Your task to perform on an android device: Is it going to rain tomorrow? Image 0: 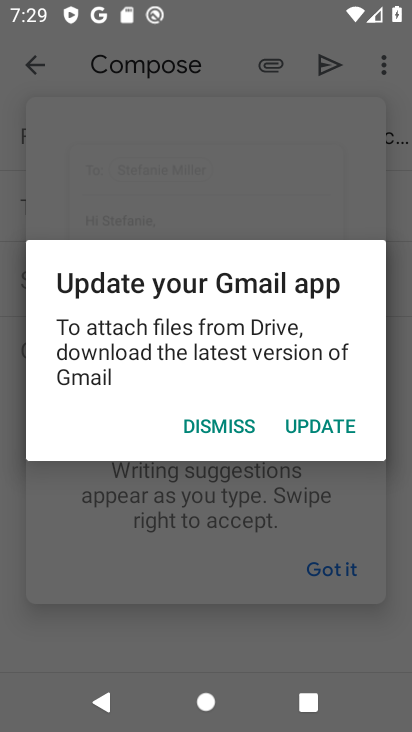
Step 0: press home button
Your task to perform on an android device: Is it going to rain tomorrow? Image 1: 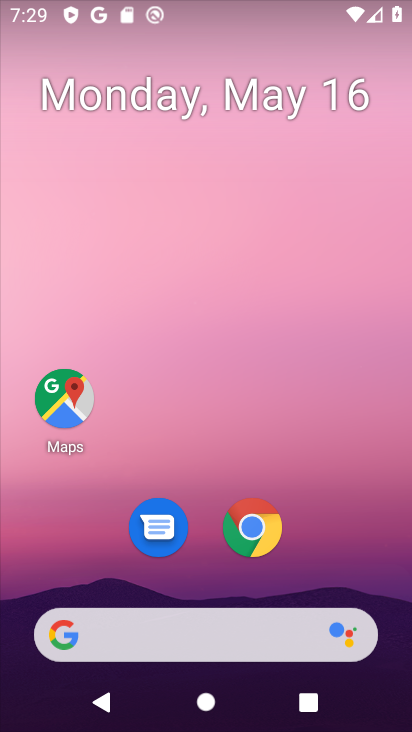
Step 1: drag from (287, 568) to (284, 204)
Your task to perform on an android device: Is it going to rain tomorrow? Image 2: 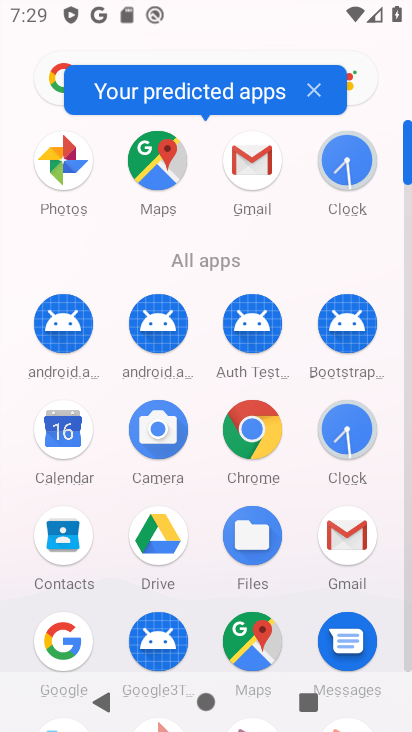
Step 2: click (264, 439)
Your task to perform on an android device: Is it going to rain tomorrow? Image 3: 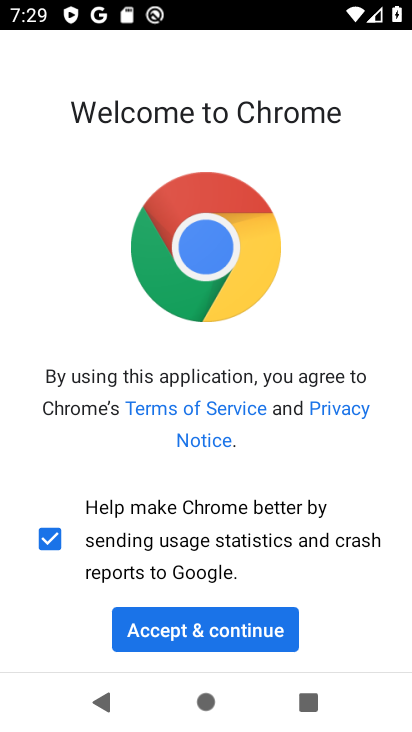
Step 3: click (153, 636)
Your task to perform on an android device: Is it going to rain tomorrow? Image 4: 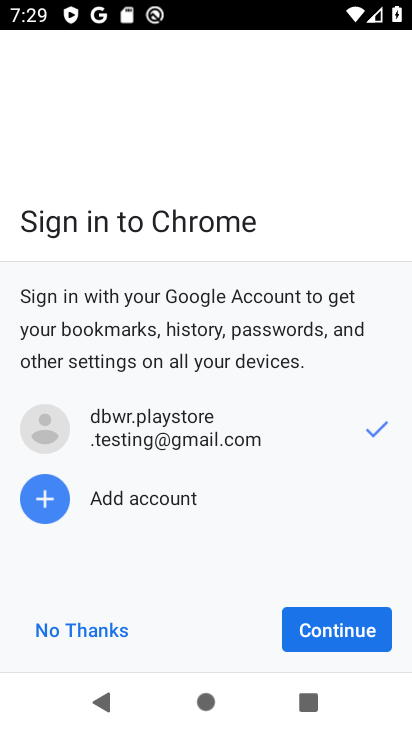
Step 4: click (298, 621)
Your task to perform on an android device: Is it going to rain tomorrow? Image 5: 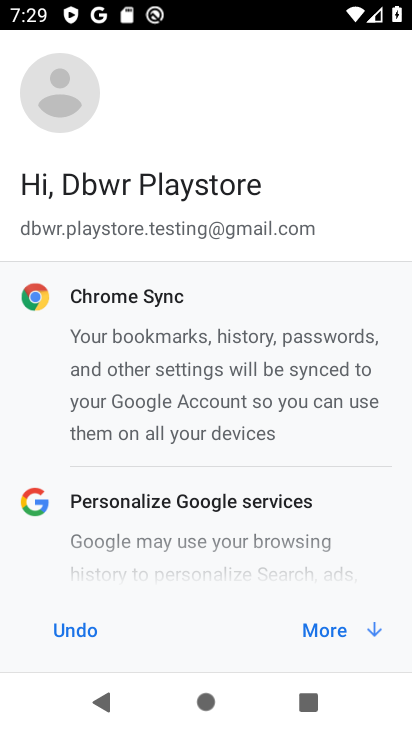
Step 5: click (325, 631)
Your task to perform on an android device: Is it going to rain tomorrow? Image 6: 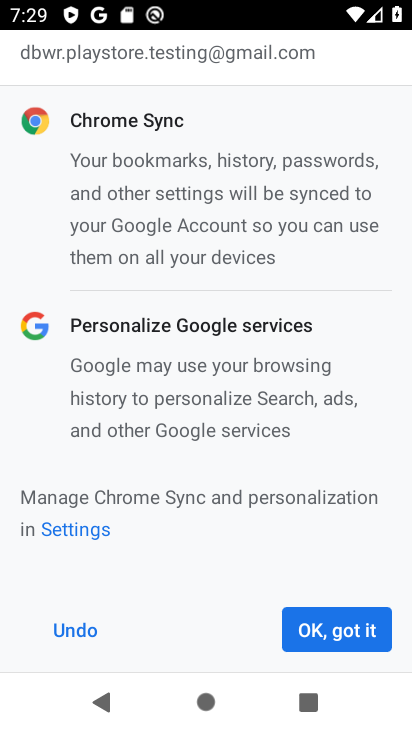
Step 6: click (332, 627)
Your task to perform on an android device: Is it going to rain tomorrow? Image 7: 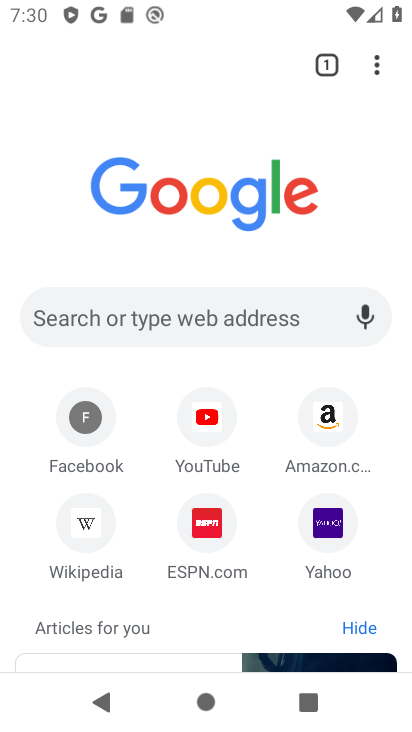
Step 7: click (243, 320)
Your task to perform on an android device: Is it going to rain tomorrow? Image 8: 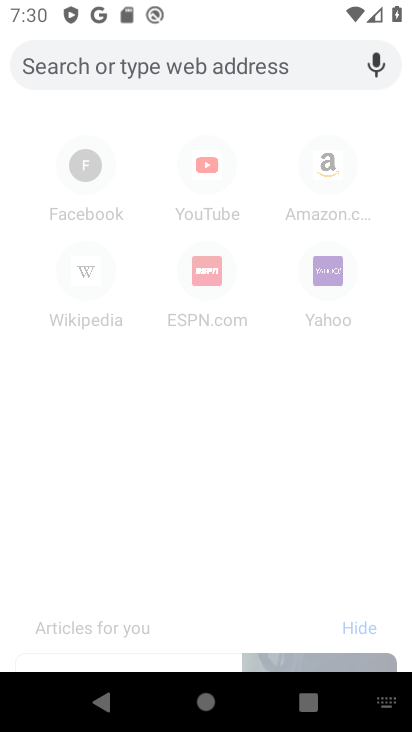
Step 8: type "Is it going to rain tomorrow?"
Your task to perform on an android device: Is it going to rain tomorrow? Image 9: 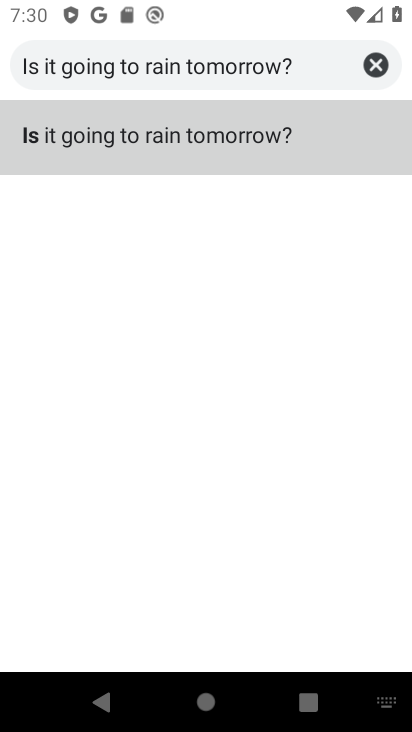
Step 9: click (248, 136)
Your task to perform on an android device: Is it going to rain tomorrow? Image 10: 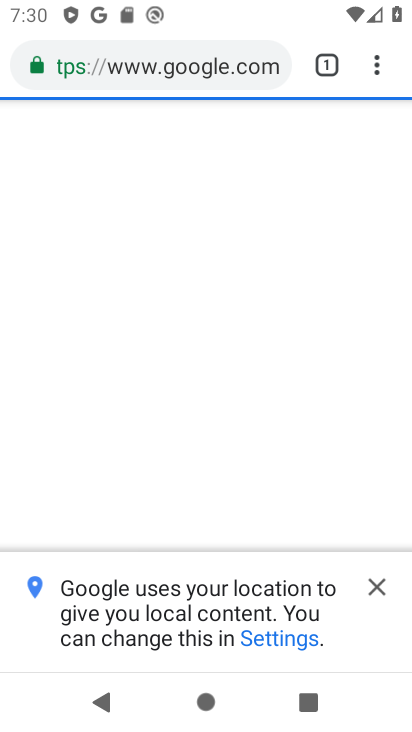
Step 10: click (248, 136)
Your task to perform on an android device: Is it going to rain tomorrow? Image 11: 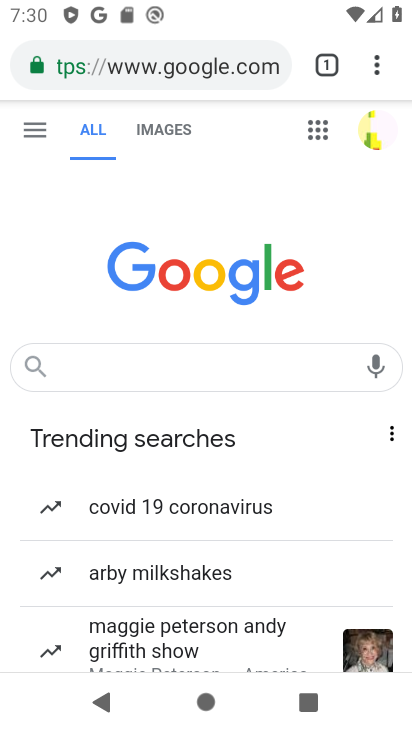
Step 11: click (163, 346)
Your task to perform on an android device: Is it going to rain tomorrow? Image 12: 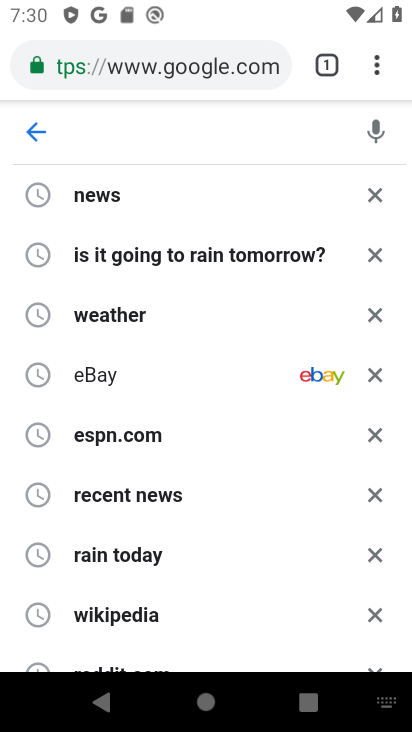
Step 12: click (171, 252)
Your task to perform on an android device: Is it going to rain tomorrow? Image 13: 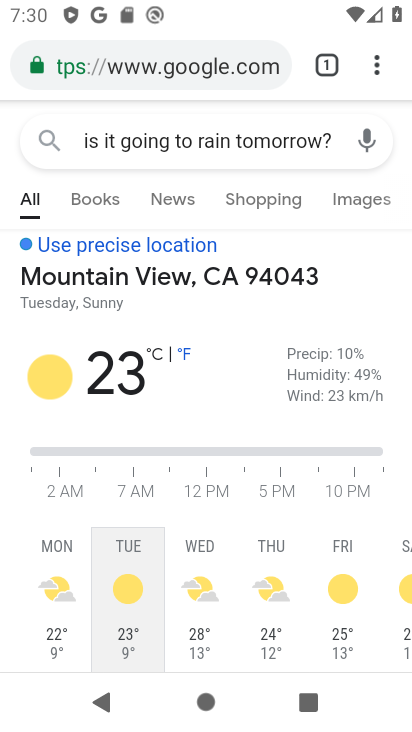
Step 13: task complete